Your task to perform on an android device: Go to settings Image 0: 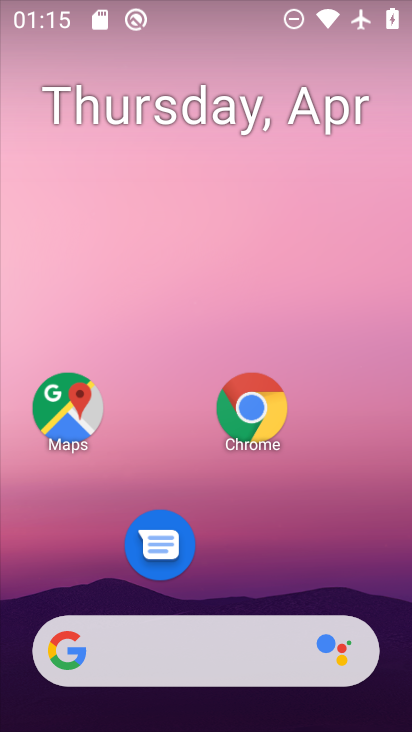
Step 0: drag from (367, 551) to (287, 93)
Your task to perform on an android device: Go to settings Image 1: 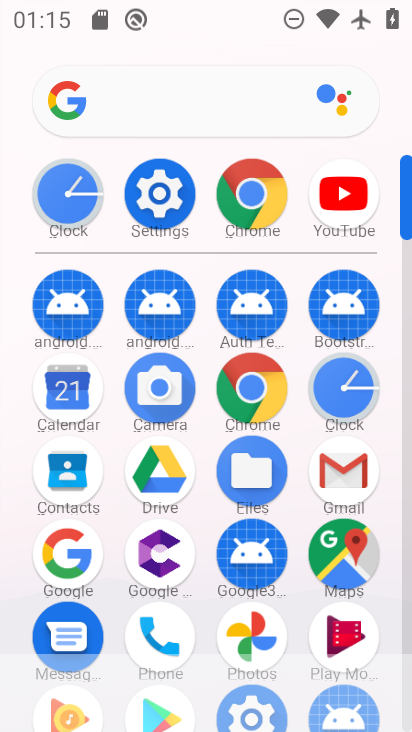
Step 1: click (163, 190)
Your task to perform on an android device: Go to settings Image 2: 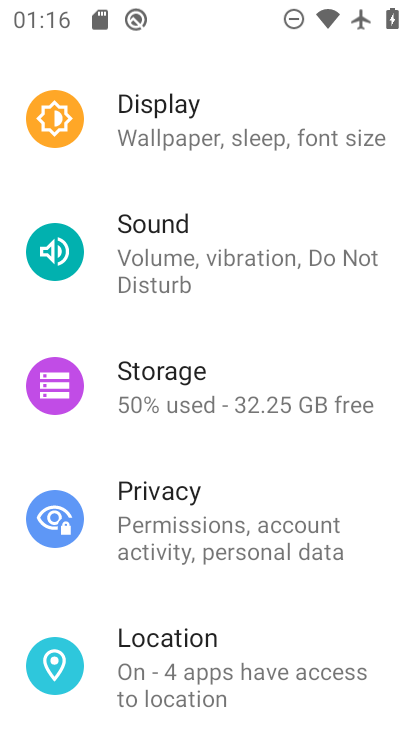
Step 2: task complete